Your task to perform on an android device: toggle sleep mode Image 0: 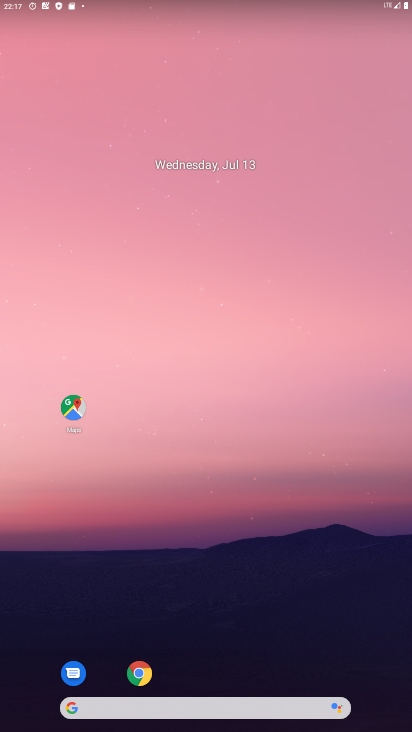
Step 0: drag from (213, 670) to (229, 230)
Your task to perform on an android device: toggle sleep mode Image 1: 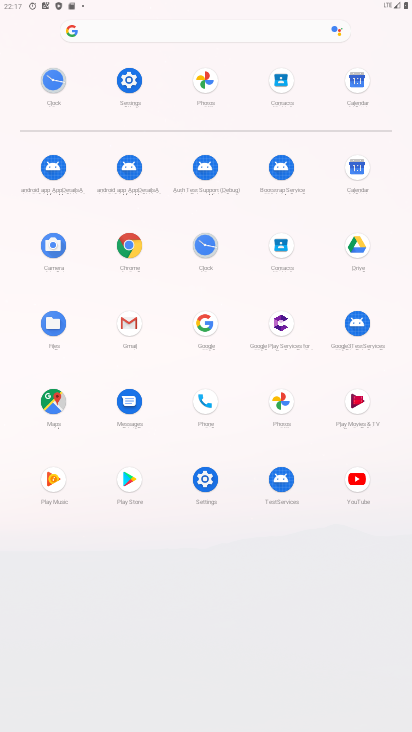
Step 1: click (130, 74)
Your task to perform on an android device: toggle sleep mode Image 2: 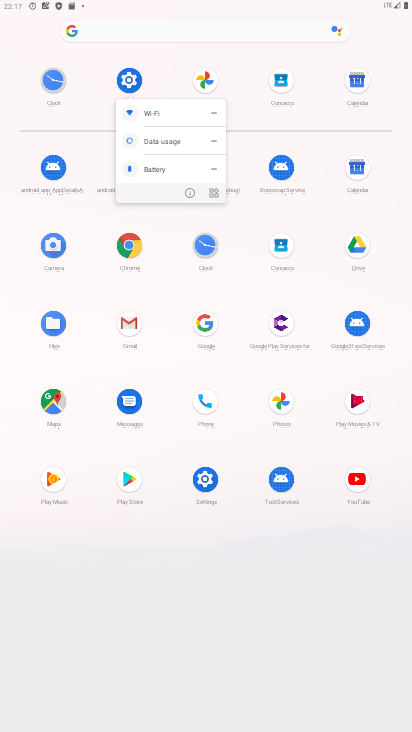
Step 2: click (189, 191)
Your task to perform on an android device: toggle sleep mode Image 3: 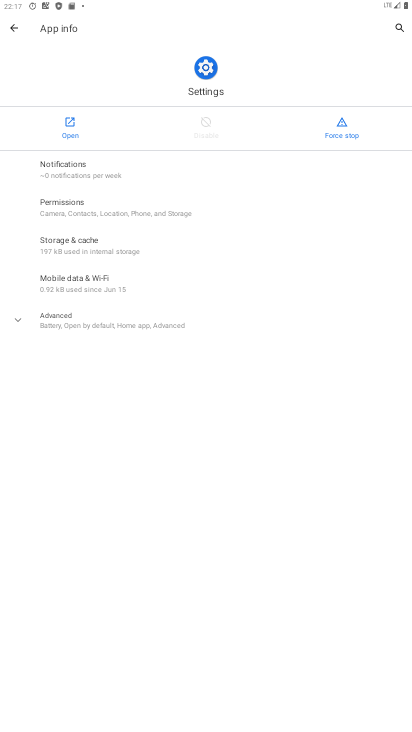
Step 3: click (72, 128)
Your task to perform on an android device: toggle sleep mode Image 4: 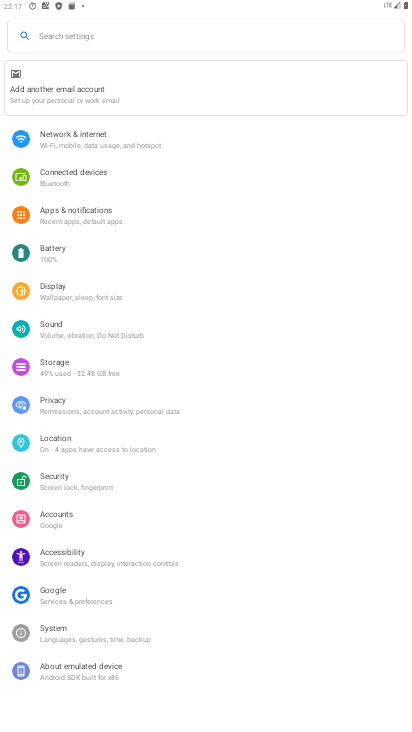
Step 4: click (92, 290)
Your task to perform on an android device: toggle sleep mode Image 5: 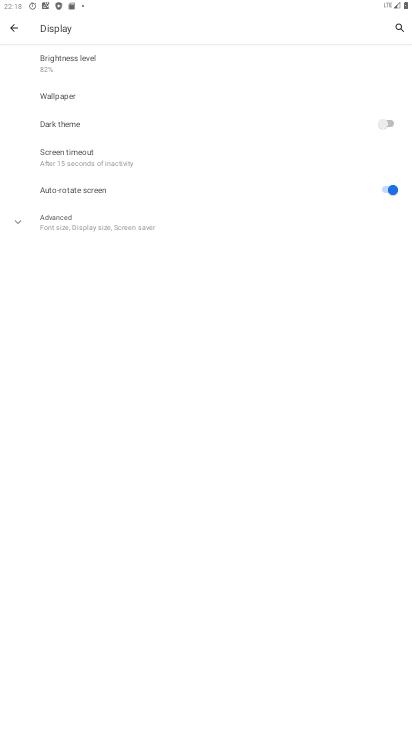
Step 5: click (95, 160)
Your task to perform on an android device: toggle sleep mode Image 6: 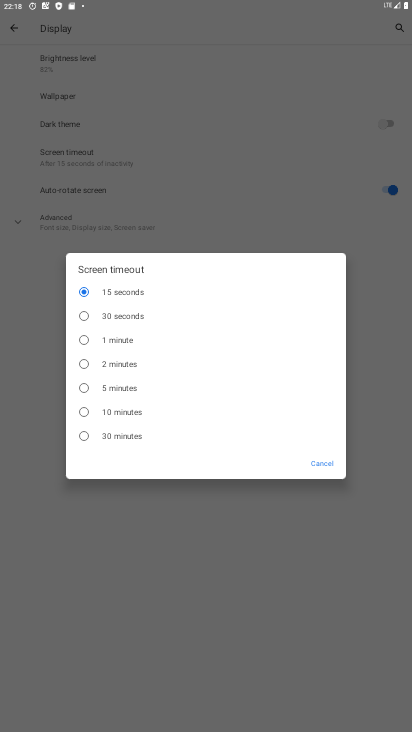
Step 6: click (85, 367)
Your task to perform on an android device: toggle sleep mode Image 7: 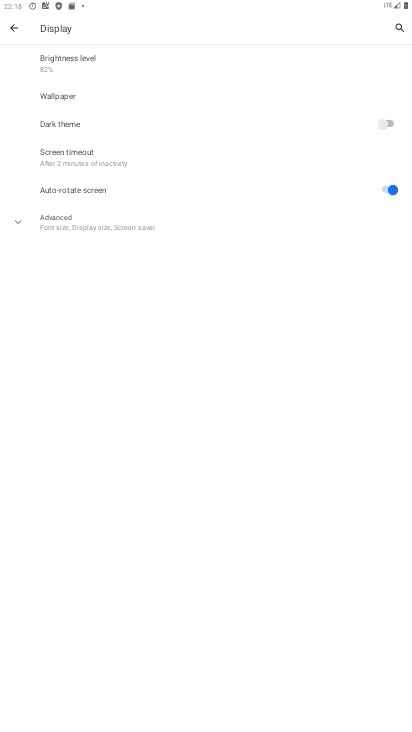
Step 7: task complete